Your task to perform on an android device: Check the news Image 0: 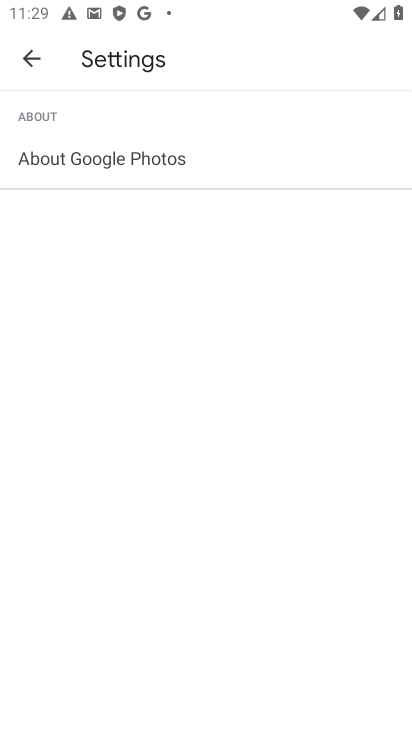
Step 0: press back button
Your task to perform on an android device: Check the news Image 1: 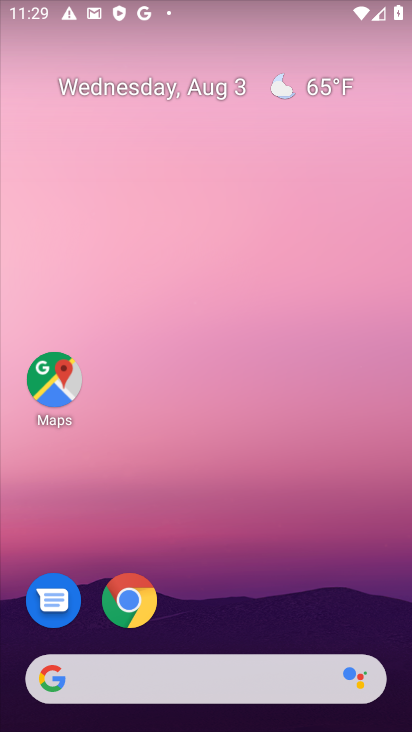
Step 1: click (219, 686)
Your task to perform on an android device: Check the news Image 2: 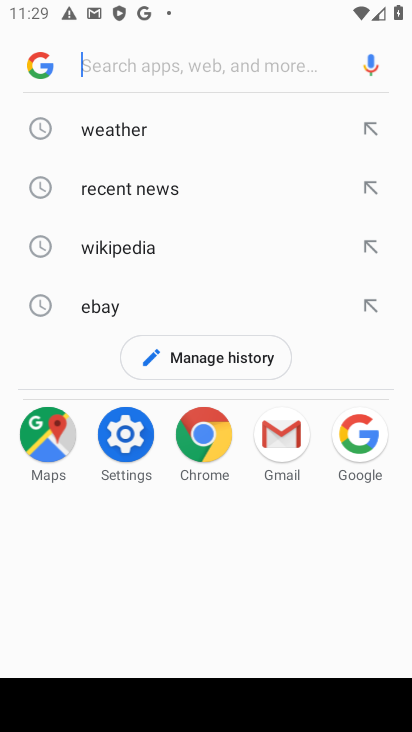
Step 2: click (138, 198)
Your task to perform on an android device: Check the news Image 3: 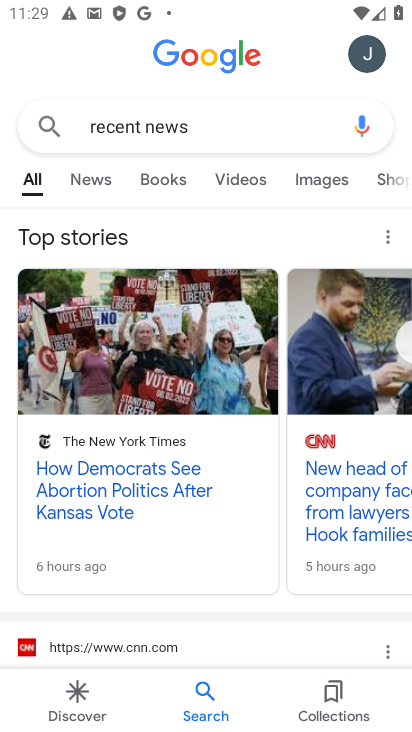
Step 3: click (69, 170)
Your task to perform on an android device: Check the news Image 4: 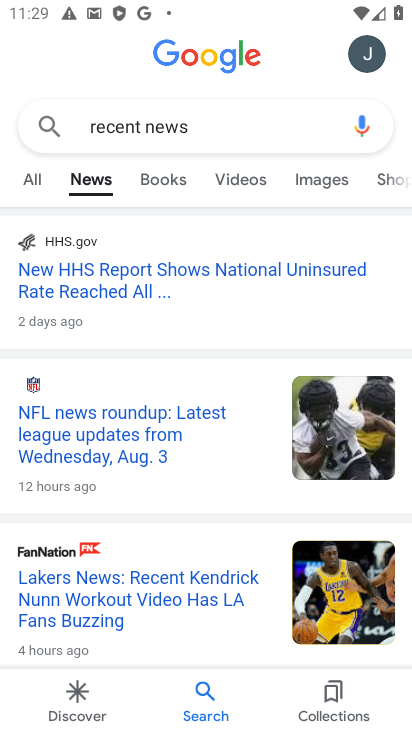
Step 4: task complete